Your task to perform on an android device: remove spam from my inbox in the gmail app Image 0: 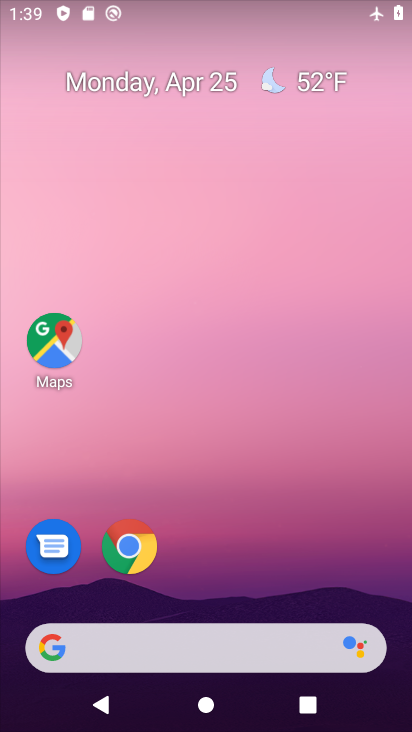
Step 0: drag from (255, 652) to (238, 134)
Your task to perform on an android device: remove spam from my inbox in the gmail app Image 1: 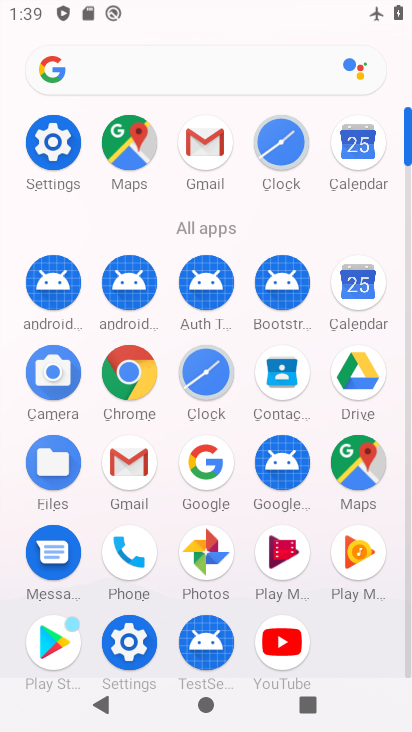
Step 1: click (111, 475)
Your task to perform on an android device: remove spam from my inbox in the gmail app Image 2: 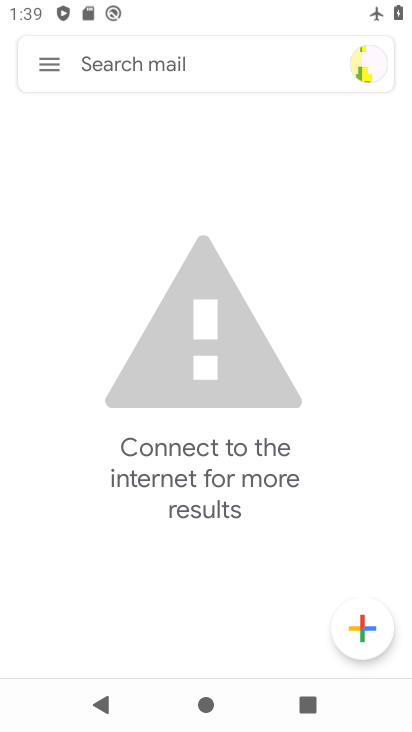
Step 2: click (46, 62)
Your task to perform on an android device: remove spam from my inbox in the gmail app Image 3: 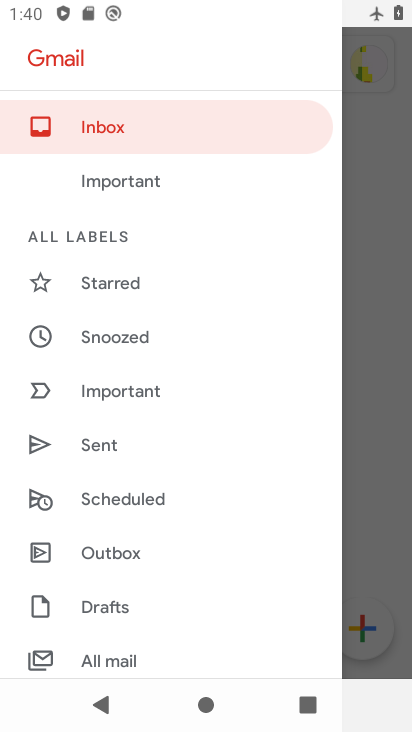
Step 3: click (112, 571)
Your task to perform on an android device: remove spam from my inbox in the gmail app Image 4: 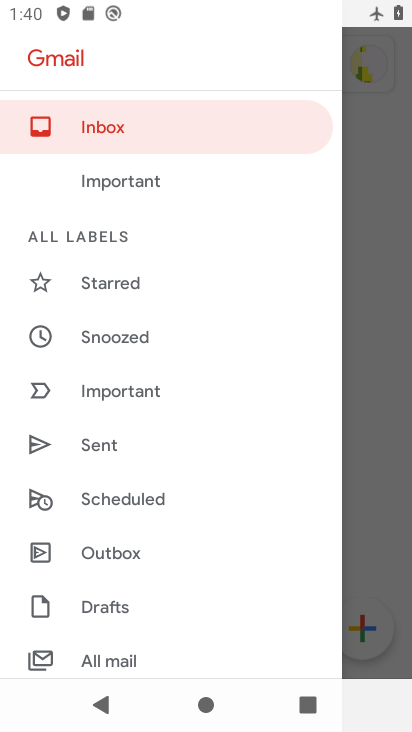
Step 4: drag from (114, 617) to (105, 220)
Your task to perform on an android device: remove spam from my inbox in the gmail app Image 5: 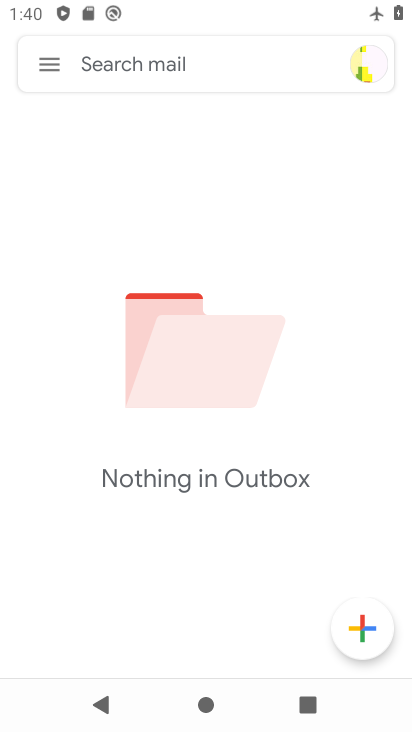
Step 5: click (52, 57)
Your task to perform on an android device: remove spam from my inbox in the gmail app Image 6: 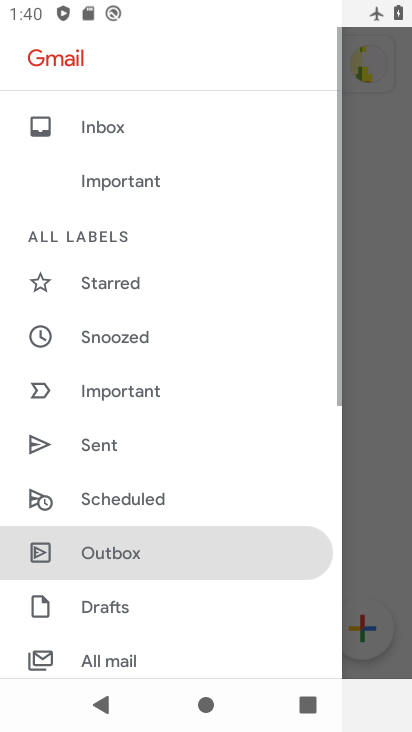
Step 6: drag from (79, 528) to (90, 108)
Your task to perform on an android device: remove spam from my inbox in the gmail app Image 7: 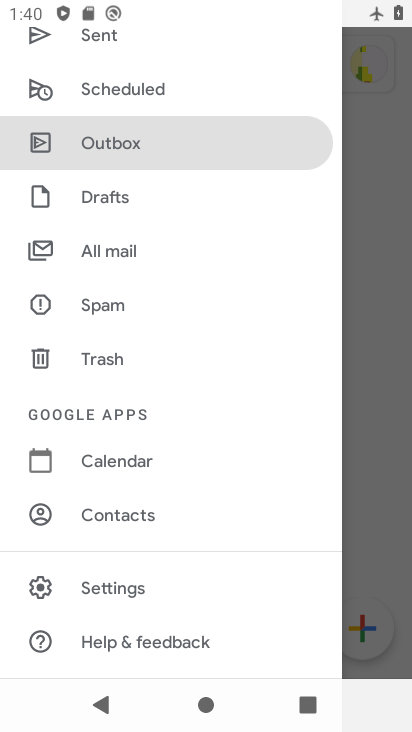
Step 7: click (85, 304)
Your task to perform on an android device: remove spam from my inbox in the gmail app Image 8: 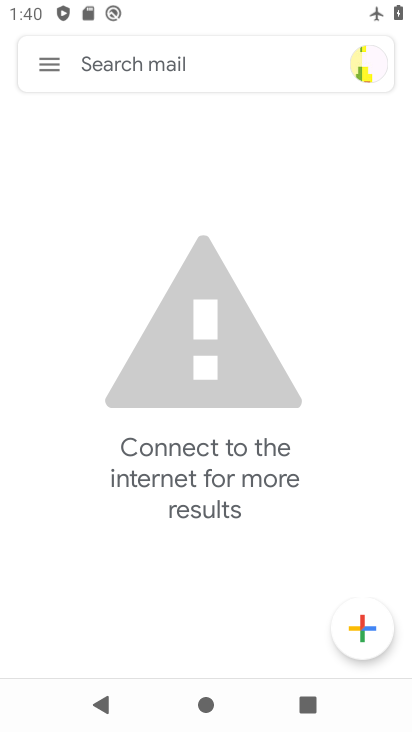
Step 8: task complete